Your task to perform on an android device: Show me productivity apps on the Play Store Image 0: 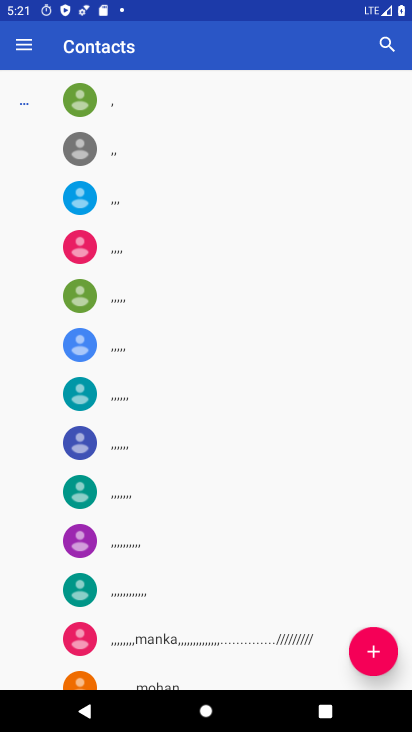
Step 0: press home button
Your task to perform on an android device: Show me productivity apps on the Play Store Image 1: 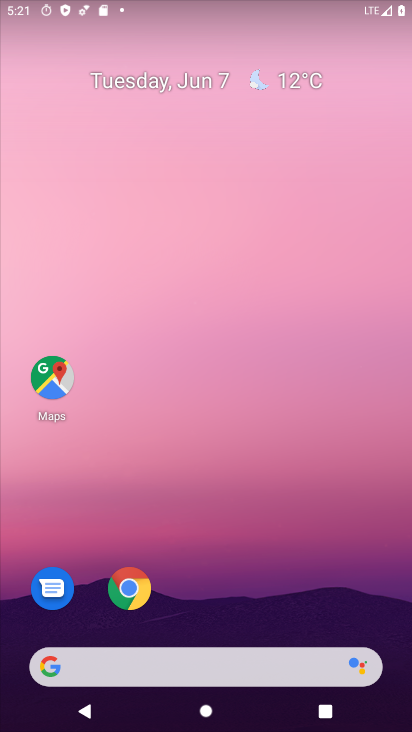
Step 1: drag from (184, 632) to (238, 24)
Your task to perform on an android device: Show me productivity apps on the Play Store Image 2: 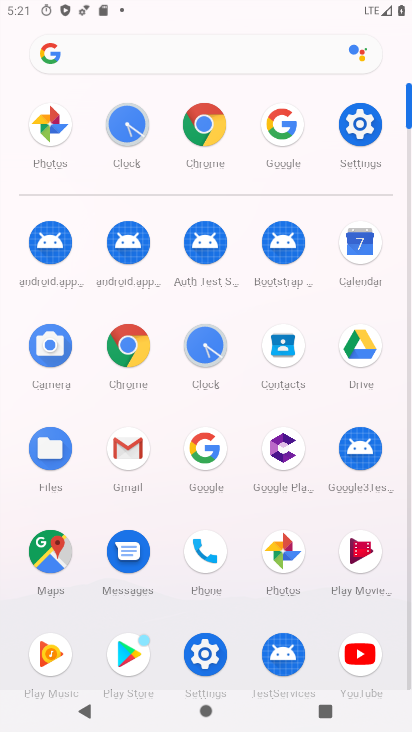
Step 2: click (131, 649)
Your task to perform on an android device: Show me productivity apps on the Play Store Image 3: 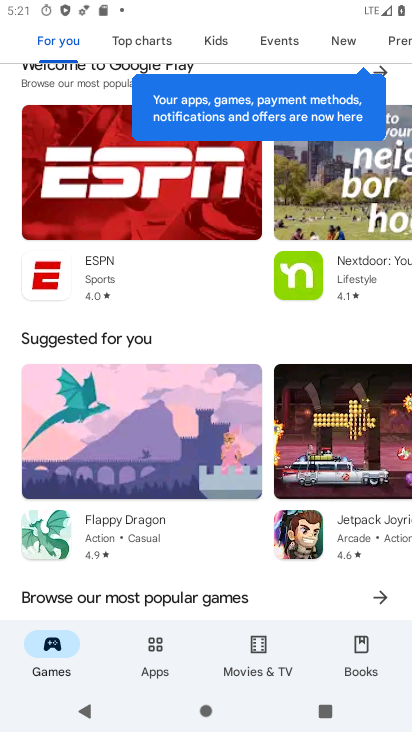
Step 3: click (156, 670)
Your task to perform on an android device: Show me productivity apps on the Play Store Image 4: 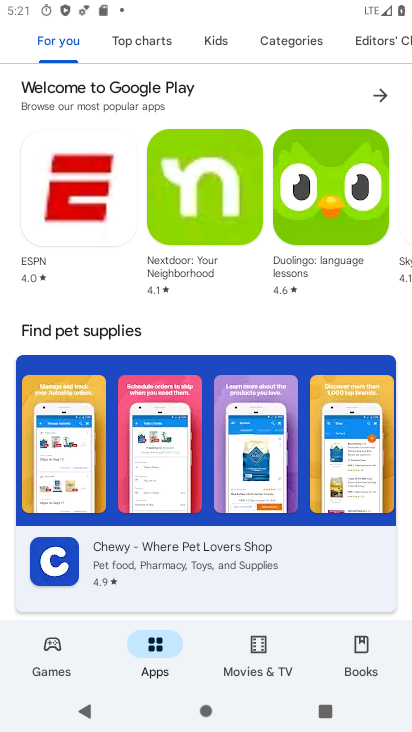
Step 4: click (295, 44)
Your task to perform on an android device: Show me productivity apps on the Play Store Image 5: 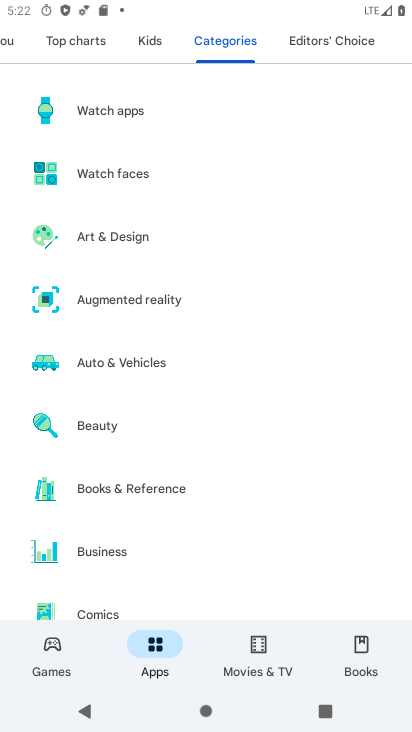
Step 5: drag from (135, 555) to (158, 148)
Your task to perform on an android device: Show me productivity apps on the Play Store Image 6: 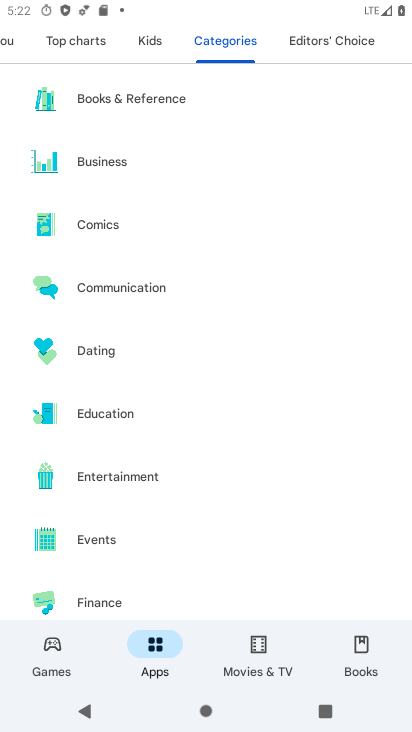
Step 6: drag from (157, 528) to (186, 128)
Your task to perform on an android device: Show me productivity apps on the Play Store Image 7: 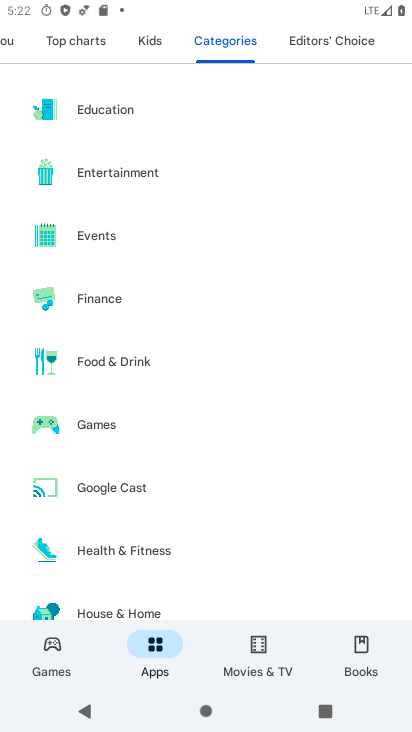
Step 7: drag from (144, 542) to (223, 7)
Your task to perform on an android device: Show me productivity apps on the Play Store Image 8: 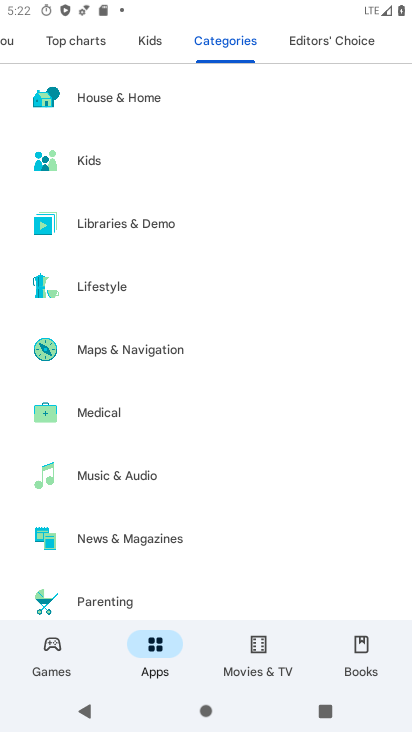
Step 8: drag from (180, 558) to (213, 203)
Your task to perform on an android device: Show me productivity apps on the Play Store Image 9: 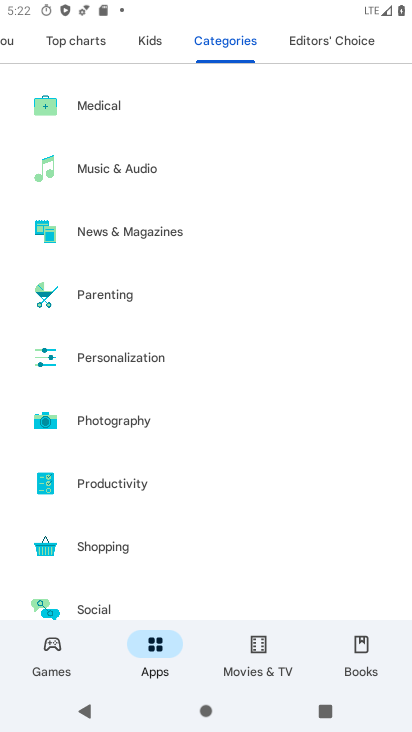
Step 9: click (103, 481)
Your task to perform on an android device: Show me productivity apps on the Play Store Image 10: 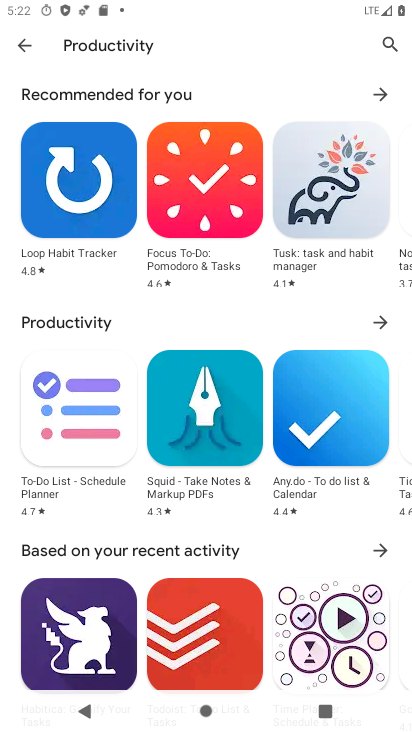
Step 10: task complete